Your task to perform on an android device: Go to Yahoo.com Image 0: 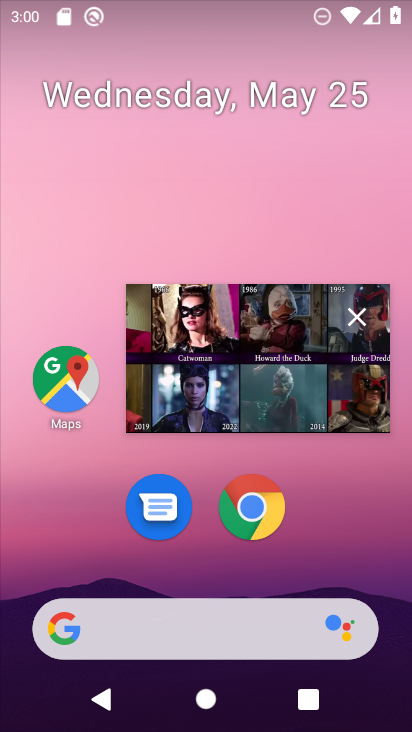
Step 0: click (352, 326)
Your task to perform on an android device: Go to Yahoo.com Image 1: 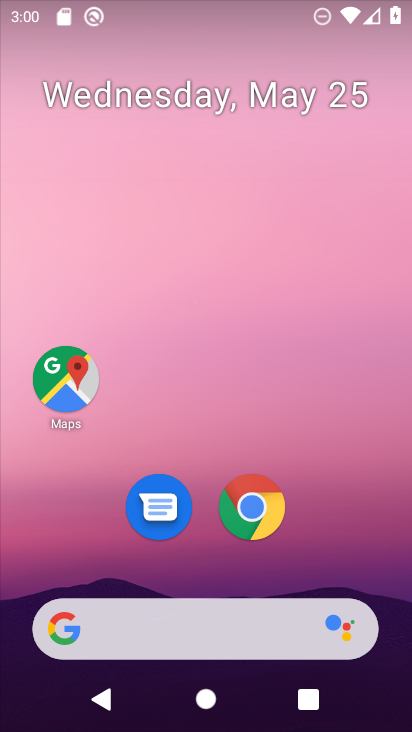
Step 1: drag from (205, 718) to (224, 172)
Your task to perform on an android device: Go to Yahoo.com Image 2: 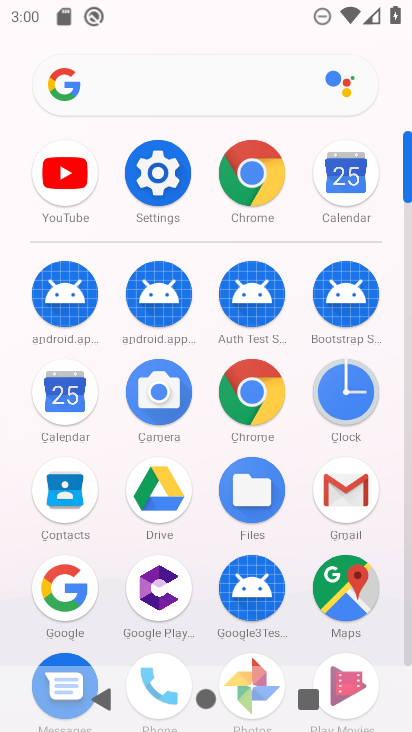
Step 2: click (274, 183)
Your task to perform on an android device: Go to Yahoo.com Image 3: 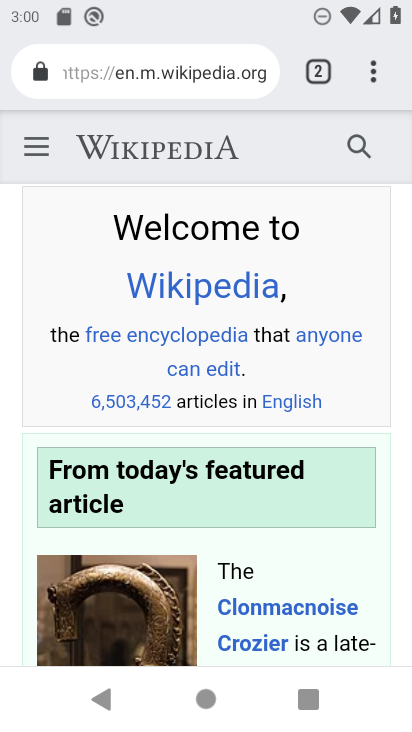
Step 3: click (203, 80)
Your task to perform on an android device: Go to Yahoo.com Image 4: 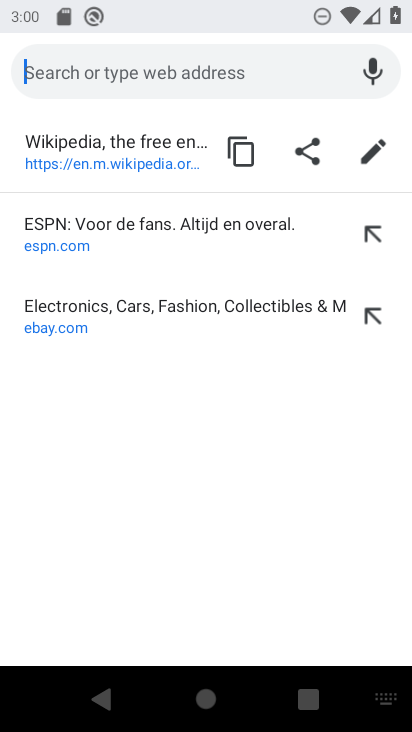
Step 4: type "yahoo"
Your task to perform on an android device: Go to Yahoo.com Image 5: 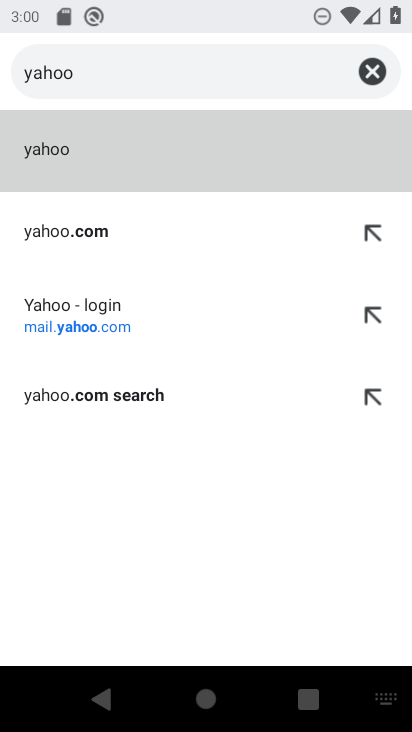
Step 5: click (224, 315)
Your task to perform on an android device: Go to Yahoo.com Image 6: 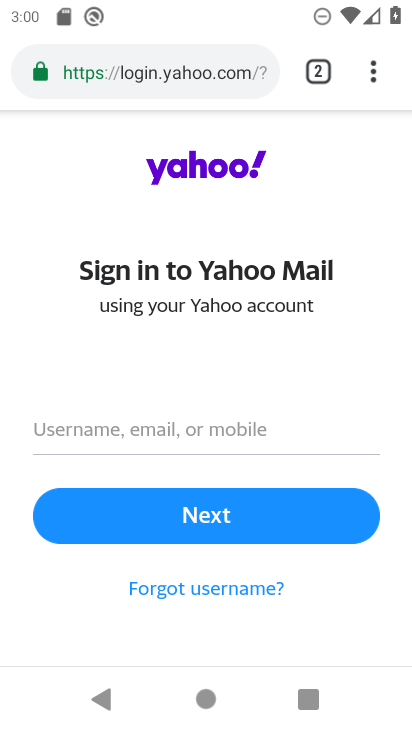
Step 6: task complete